Your task to perform on an android device: toggle data saver in the chrome app Image 0: 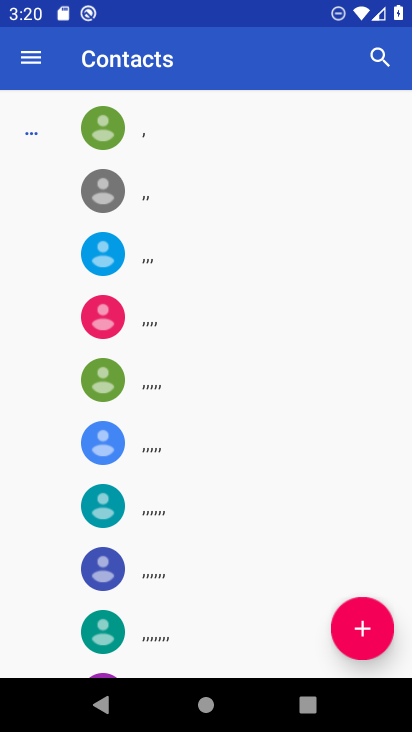
Step 0: press home button
Your task to perform on an android device: toggle data saver in the chrome app Image 1: 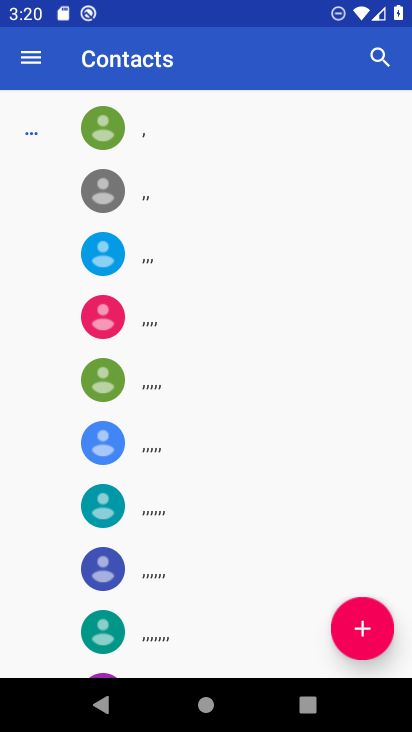
Step 1: press home button
Your task to perform on an android device: toggle data saver in the chrome app Image 2: 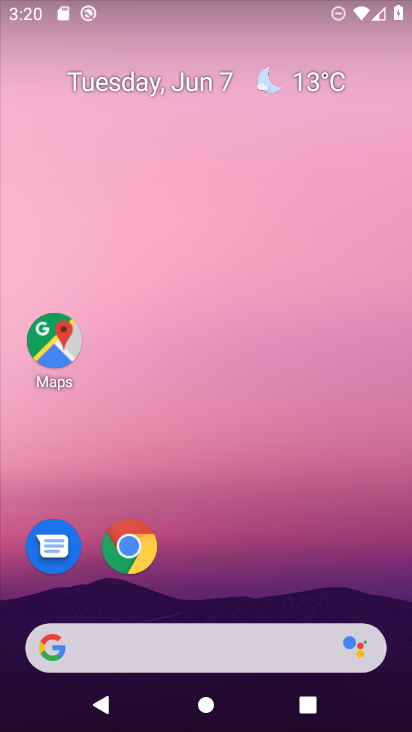
Step 2: click (108, 550)
Your task to perform on an android device: toggle data saver in the chrome app Image 3: 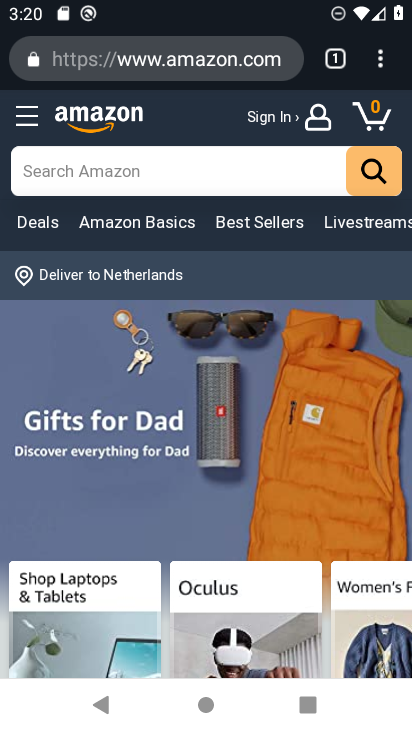
Step 3: click (376, 60)
Your task to perform on an android device: toggle data saver in the chrome app Image 4: 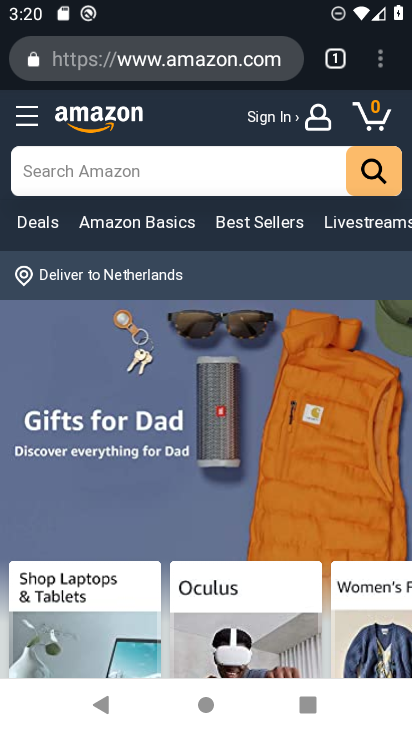
Step 4: click (376, 60)
Your task to perform on an android device: toggle data saver in the chrome app Image 5: 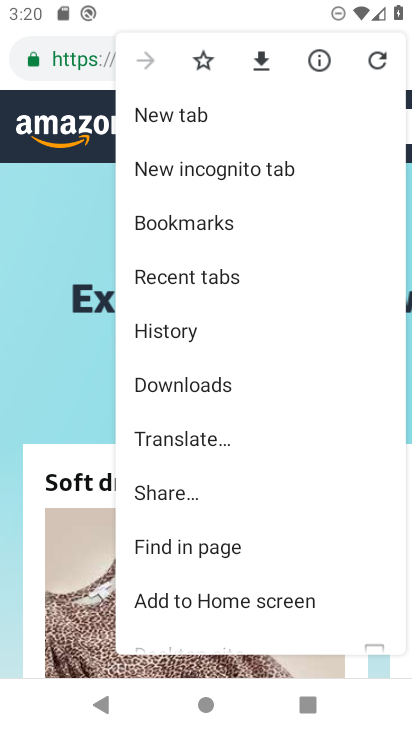
Step 5: drag from (154, 602) to (365, 130)
Your task to perform on an android device: toggle data saver in the chrome app Image 6: 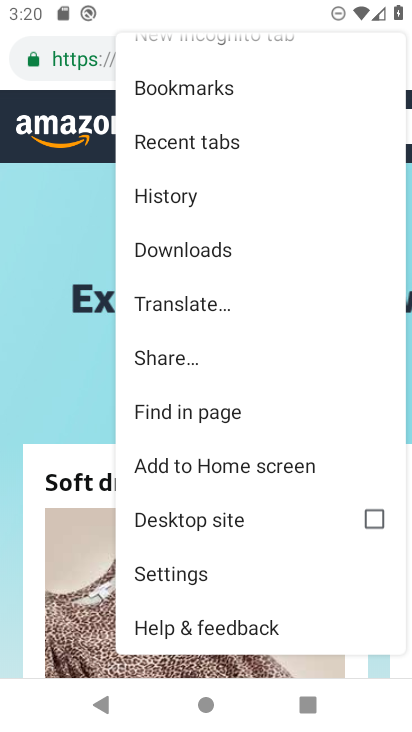
Step 6: click (191, 558)
Your task to perform on an android device: toggle data saver in the chrome app Image 7: 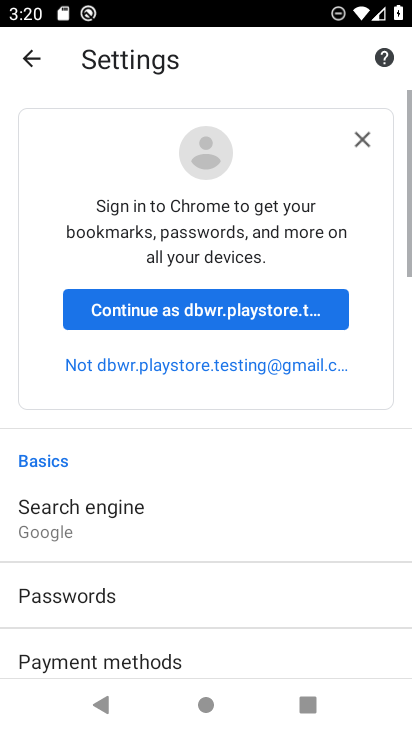
Step 7: drag from (17, 599) to (314, 139)
Your task to perform on an android device: toggle data saver in the chrome app Image 8: 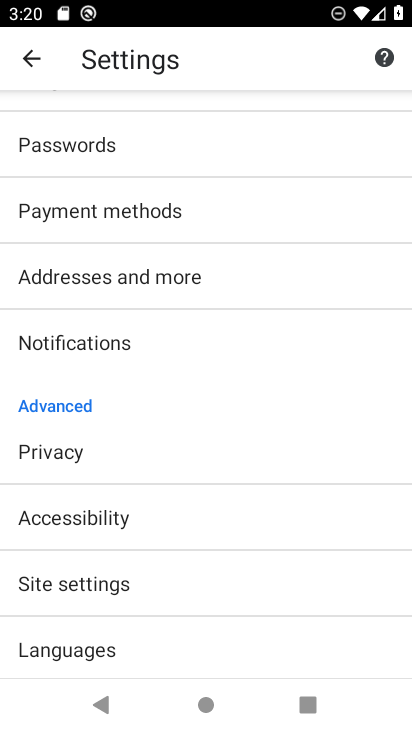
Step 8: drag from (30, 537) to (267, 125)
Your task to perform on an android device: toggle data saver in the chrome app Image 9: 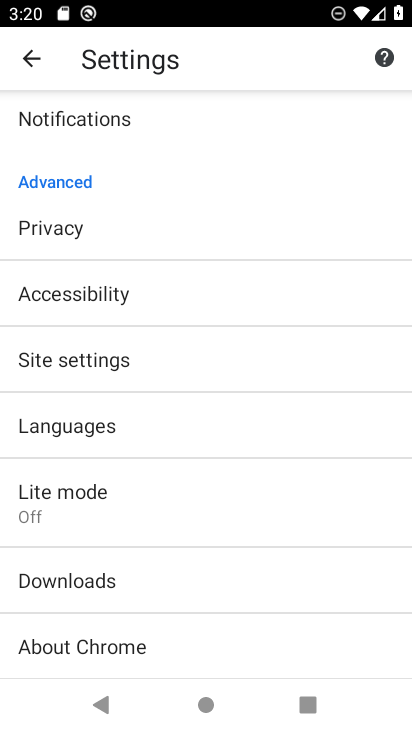
Step 9: click (57, 498)
Your task to perform on an android device: toggle data saver in the chrome app Image 10: 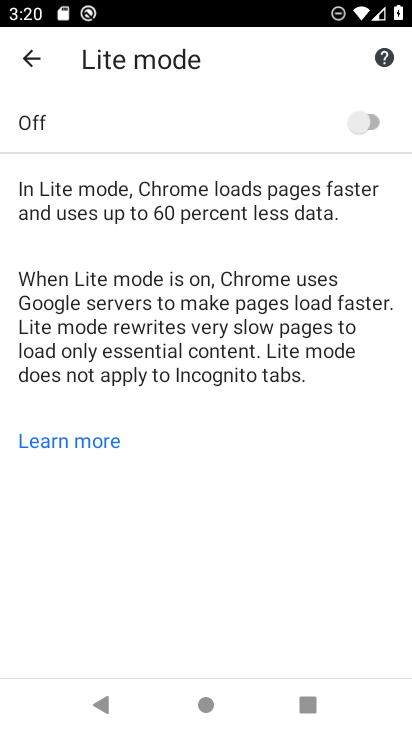
Step 10: click (368, 124)
Your task to perform on an android device: toggle data saver in the chrome app Image 11: 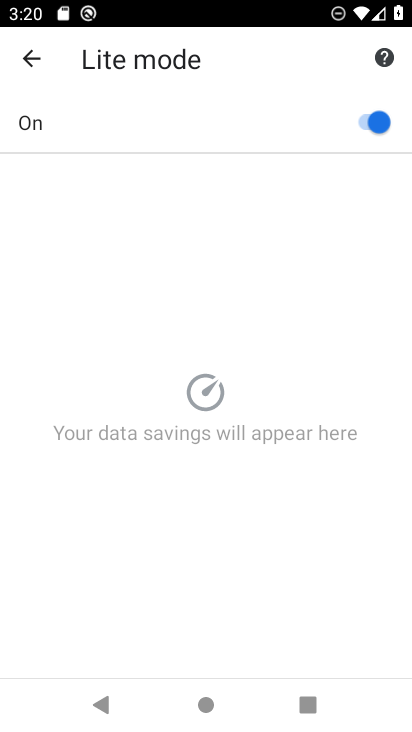
Step 11: task complete